Your task to perform on an android device: What's the weather? Image 0: 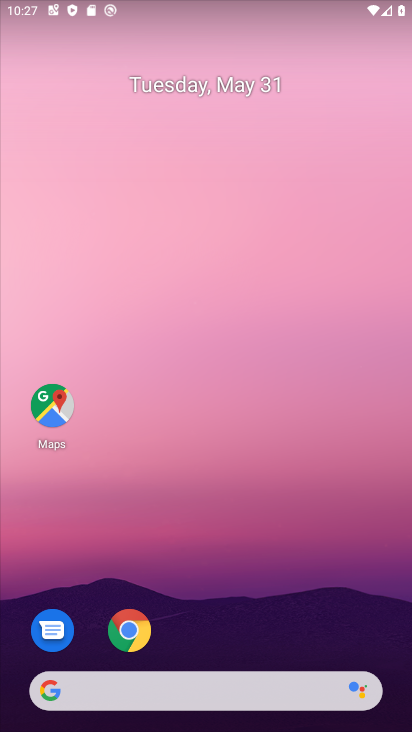
Step 0: click (256, 696)
Your task to perform on an android device: What's the weather? Image 1: 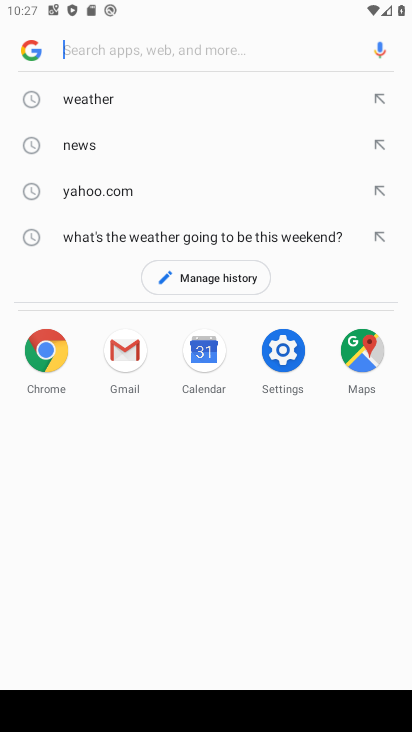
Step 1: click (84, 105)
Your task to perform on an android device: What's the weather? Image 2: 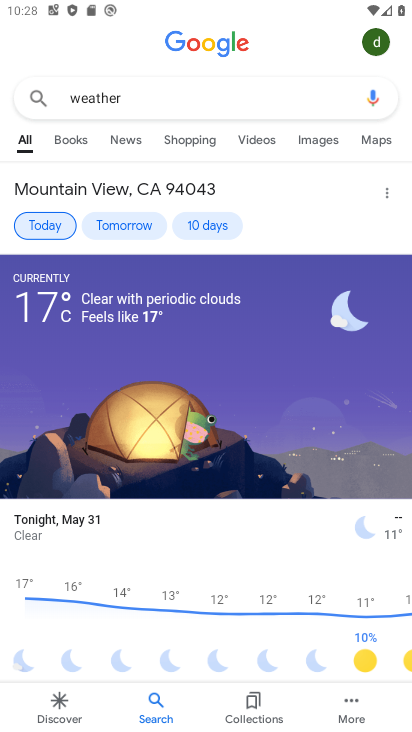
Step 2: task complete